Your task to perform on an android device: turn notification dots off Image 0: 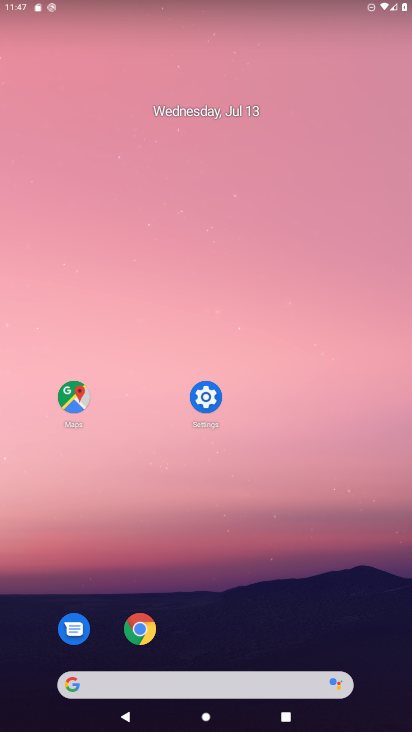
Step 0: click (214, 400)
Your task to perform on an android device: turn notification dots off Image 1: 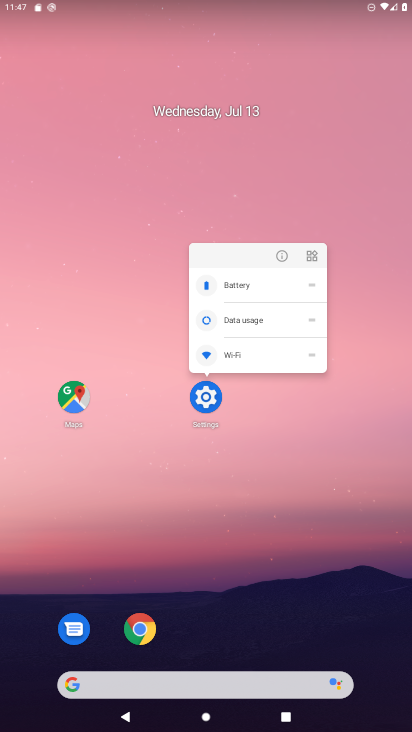
Step 1: click (213, 400)
Your task to perform on an android device: turn notification dots off Image 2: 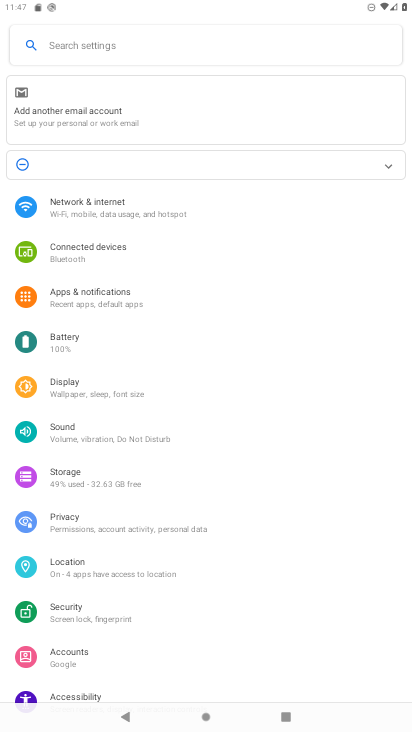
Step 2: click (73, 292)
Your task to perform on an android device: turn notification dots off Image 3: 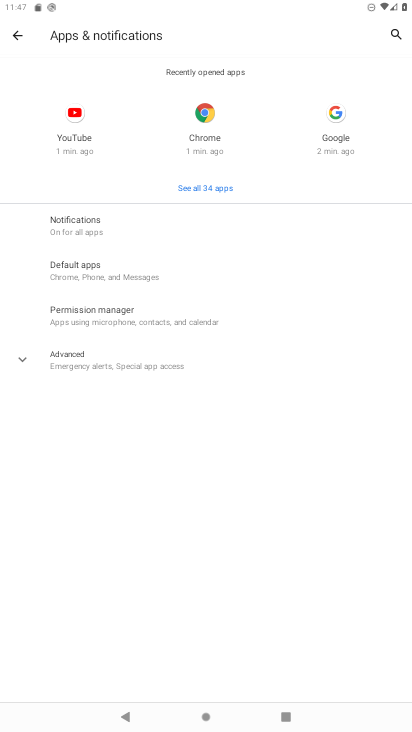
Step 3: click (78, 218)
Your task to perform on an android device: turn notification dots off Image 4: 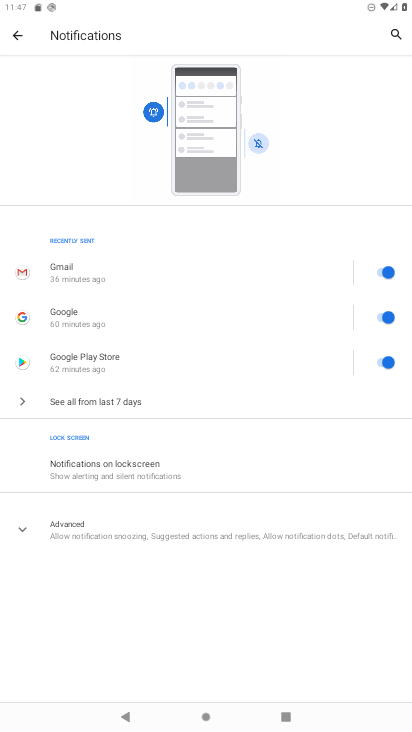
Step 4: click (24, 534)
Your task to perform on an android device: turn notification dots off Image 5: 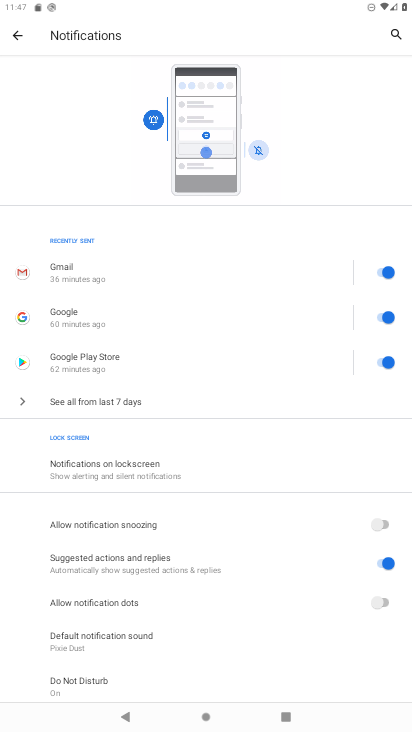
Step 5: click (384, 603)
Your task to perform on an android device: turn notification dots off Image 6: 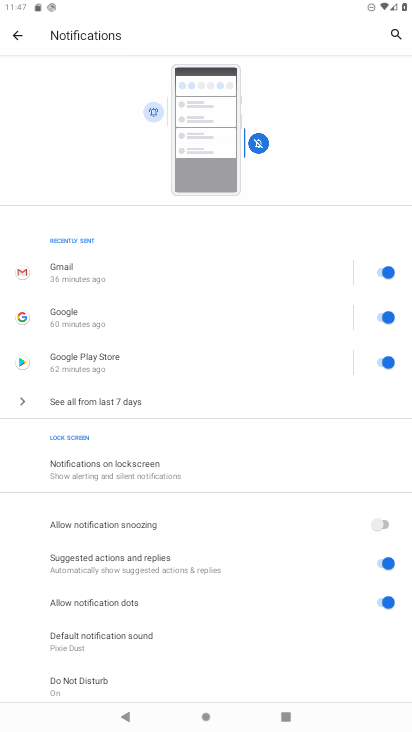
Step 6: click (390, 601)
Your task to perform on an android device: turn notification dots off Image 7: 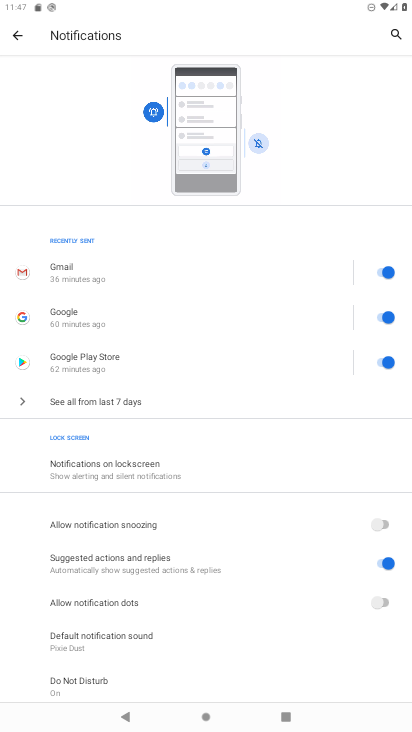
Step 7: task complete